Your task to perform on an android device: Go to sound settings Image 0: 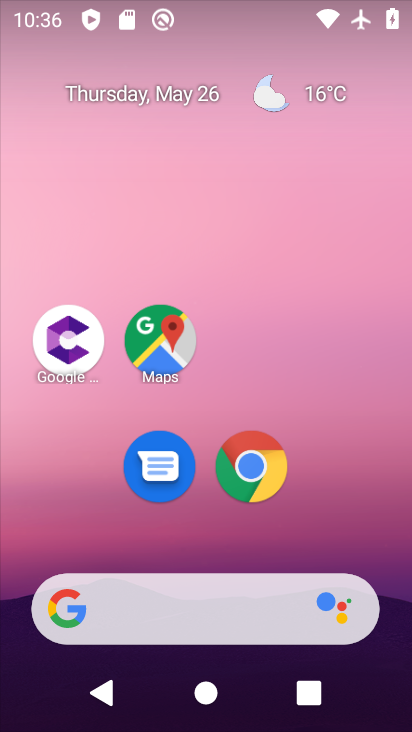
Step 0: drag from (354, 472) to (275, 4)
Your task to perform on an android device: Go to sound settings Image 1: 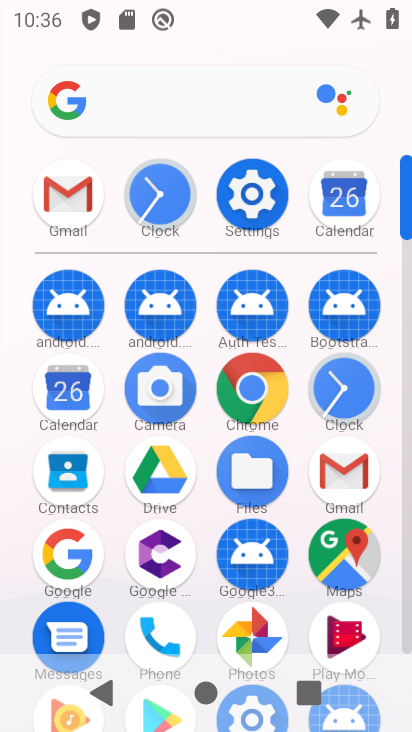
Step 1: click (250, 201)
Your task to perform on an android device: Go to sound settings Image 2: 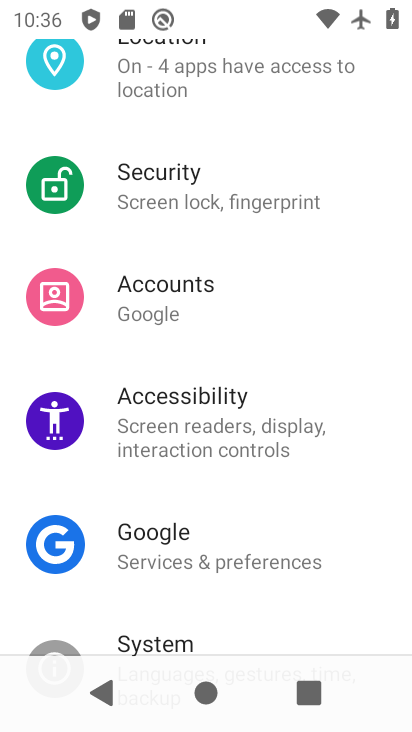
Step 2: drag from (234, 461) to (190, 148)
Your task to perform on an android device: Go to sound settings Image 3: 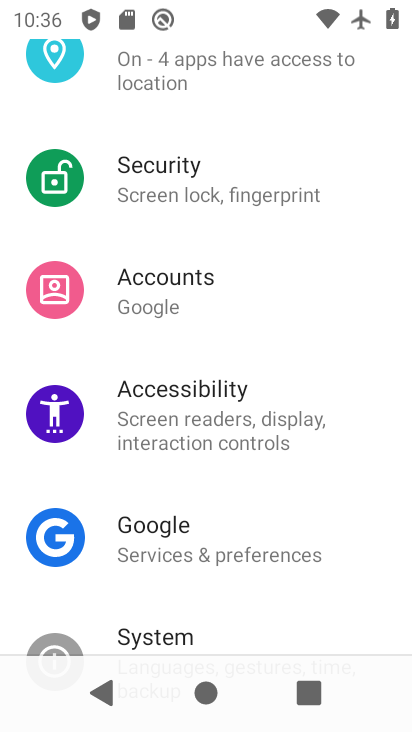
Step 3: drag from (262, 252) to (254, 595)
Your task to perform on an android device: Go to sound settings Image 4: 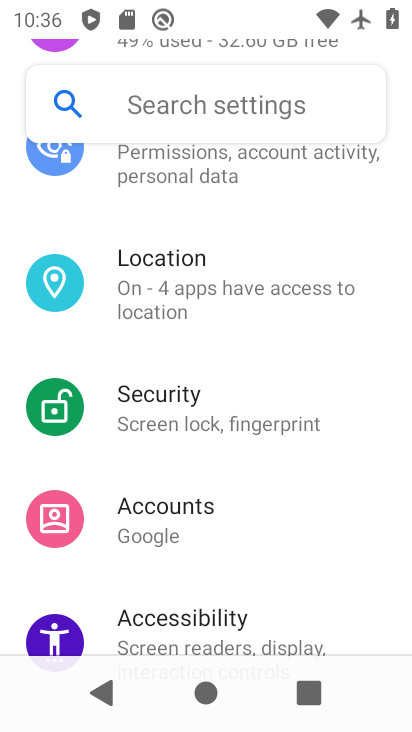
Step 4: drag from (235, 231) to (175, 657)
Your task to perform on an android device: Go to sound settings Image 5: 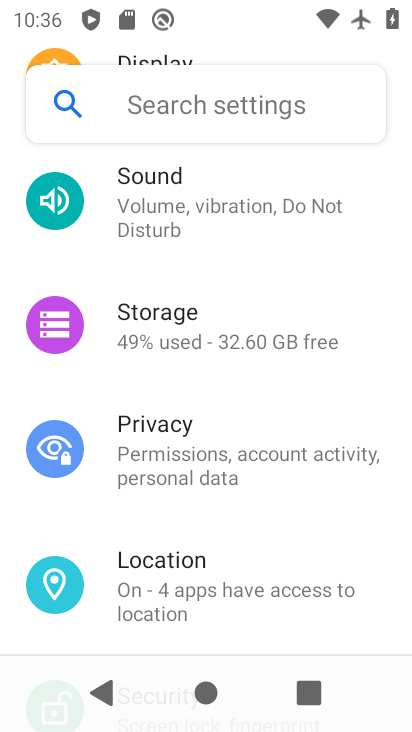
Step 5: drag from (190, 230) to (243, 568)
Your task to perform on an android device: Go to sound settings Image 6: 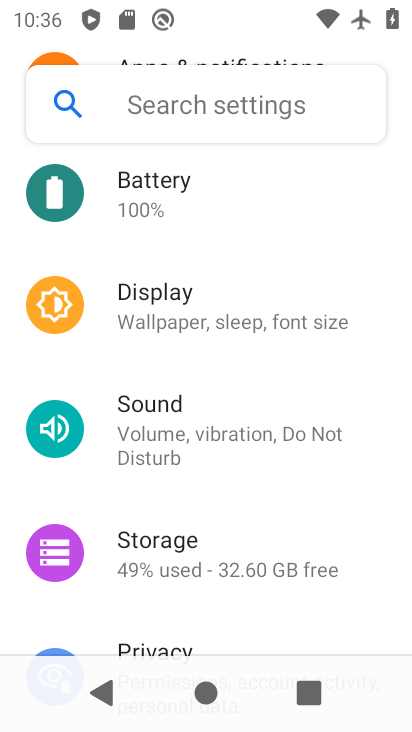
Step 6: click (144, 408)
Your task to perform on an android device: Go to sound settings Image 7: 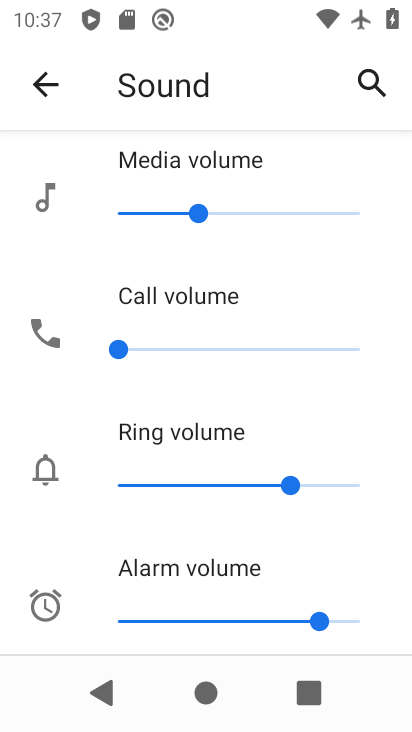
Step 7: task complete